Your task to perform on an android device: toggle improve location accuracy Image 0: 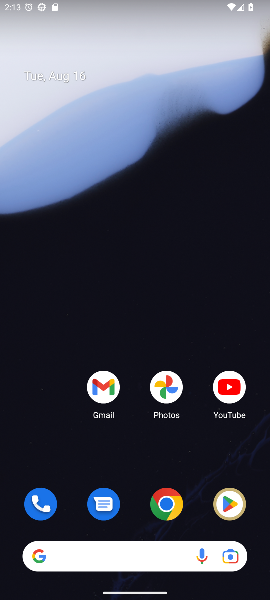
Step 0: drag from (130, 504) to (133, 242)
Your task to perform on an android device: toggle improve location accuracy Image 1: 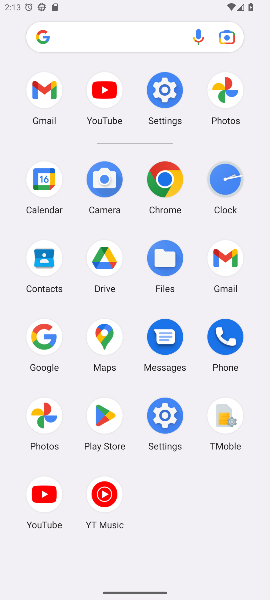
Step 1: click (164, 91)
Your task to perform on an android device: toggle improve location accuracy Image 2: 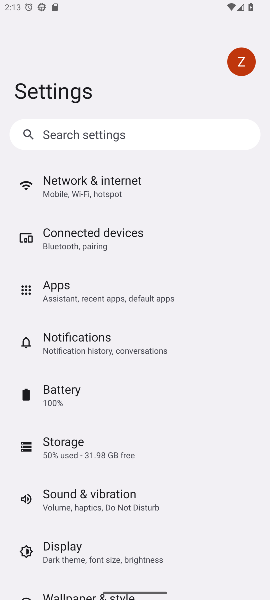
Step 2: drag from (187, 522) to (190, 233)
Your task to perform on an android device: toggle improve location accuracy Image 3: 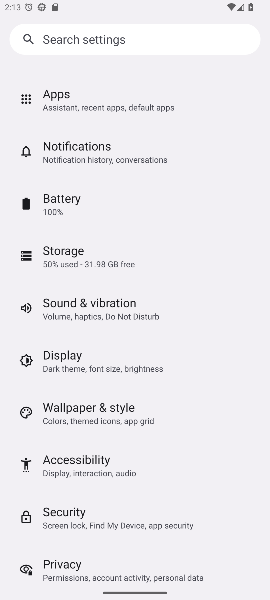
Step 3: drag from (188, 401) to (193, 185)
Your task to perform on an android device: toggle improve location accuracy Image 4: 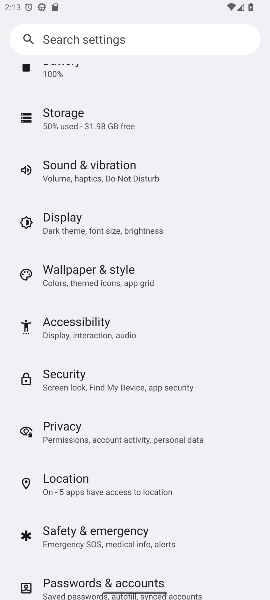
Step 4: click (66, 478)
Your task to perform on an android device: toggle improve location accuracy Image 5: 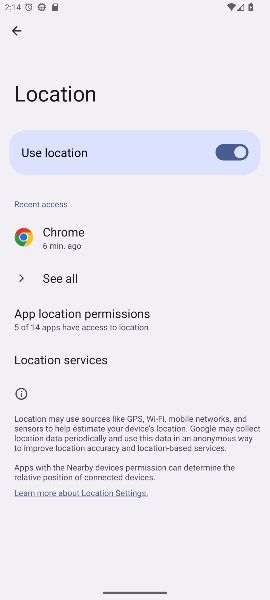
Step 5: click (72, 317)
Your task to perform on an android device: toggle improve location accuracy Image 6: 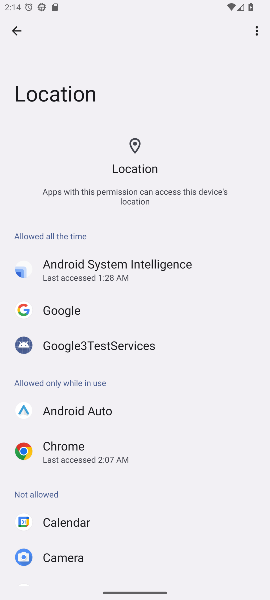
Step 6: drag from (172, 472) to (198, 224)
Your task to perform on an android device: toggle improve location accuracy Image 7: 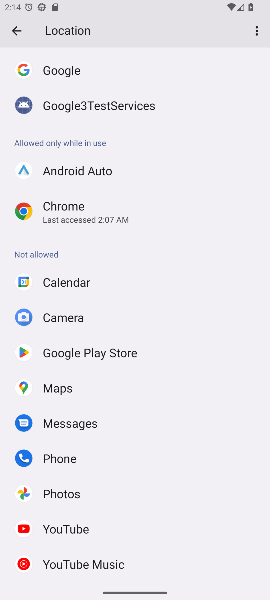
Step 7: click (16, 26)
Your task to perform on an android device: toggle improve location accuracy Image 8: 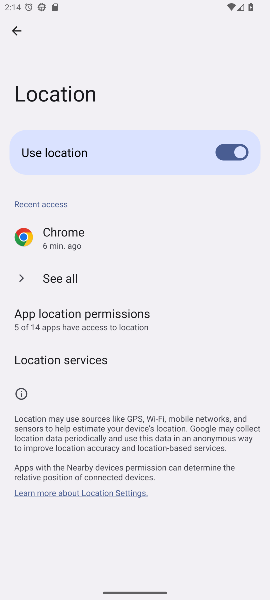
Step 8: click (68, 359)
Your task to perform on an android device: toggle improve location accuracy Image 9: 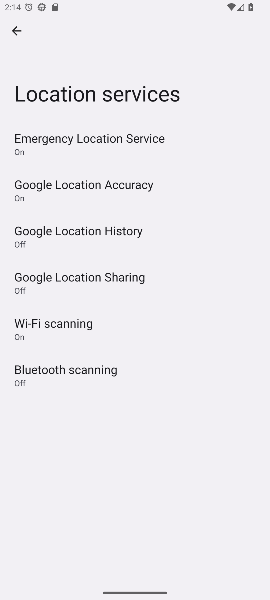
Step 9: click (83, 182)
Your task to perform on an android device: toggle improve location accuracy Image 10: 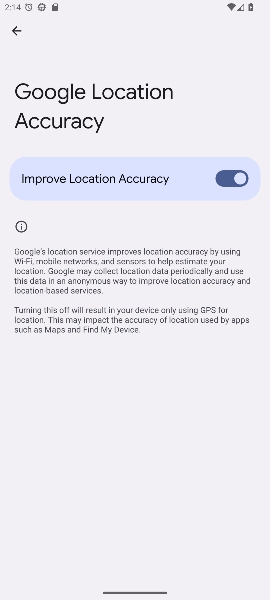
Step 10: click (241, 179)
Your task to perform on an android device: toggle improve location accuracy Image 11: 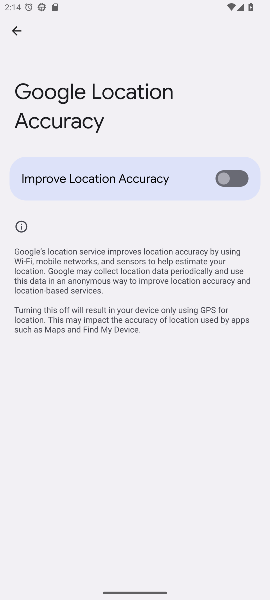
Step 11: task complete